Your task to perform on an android device: find photos in the google photos app Image 0: 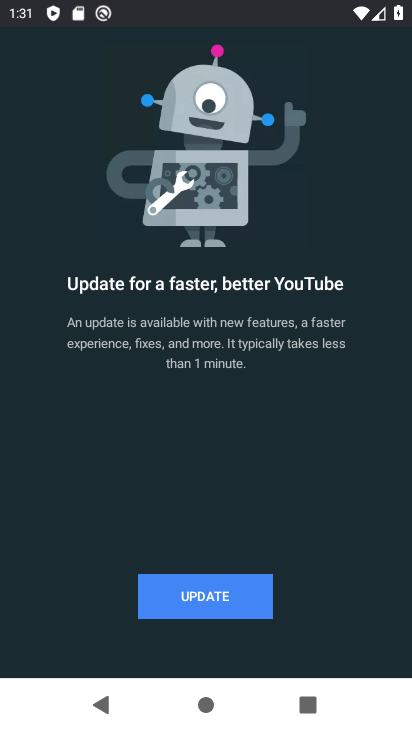
Step 0: press back button
Your task to perform on an android device: find photos in the google photos app Image 1: 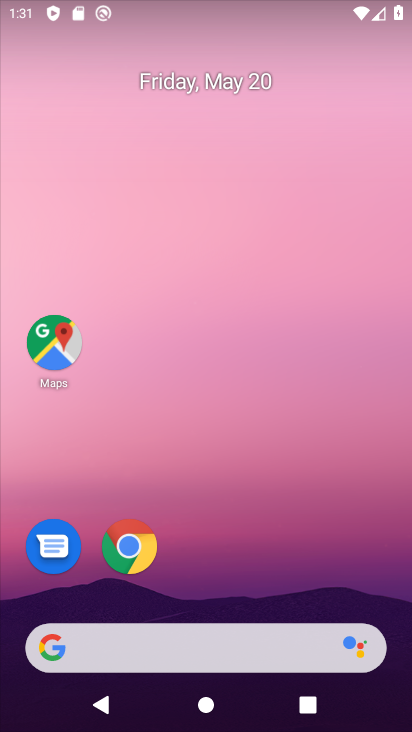
Step 1: drag from (263, 570) to (241, 101)
Your task to perform on an android device: find photos in the google photos app Image 2: 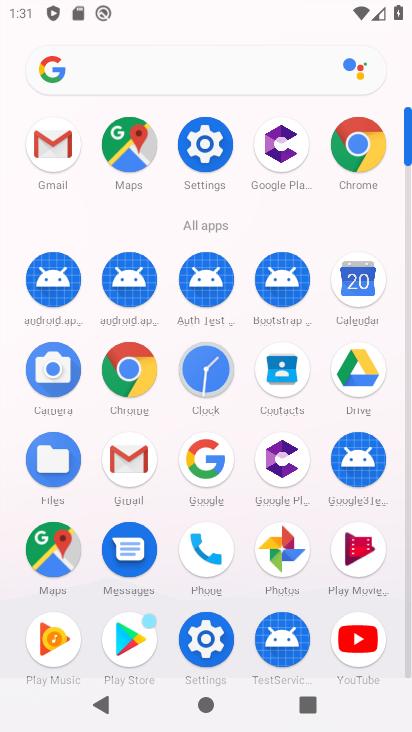
Step 2: click (281, 550)
Your task to perform on an android device: find photos in the google photos app Image 3: 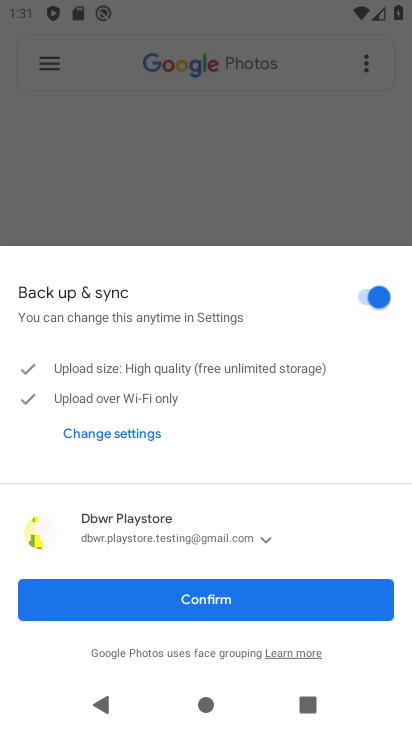
Step 3: click (349, 614)
Your task to perform on an android device: find photos in the google photos app Image 4: 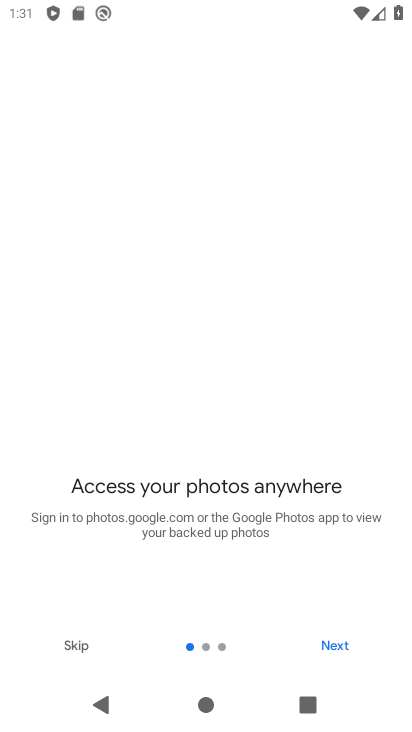
Step 4: click (76, 645)
Your task to perform on an android device: find photos in the google photos app Image 5: 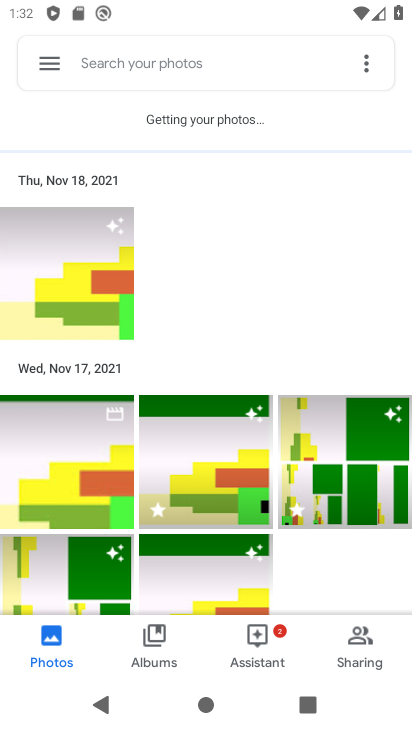
Step 5: task complete